Your task to perform on an android device: open app "Google Docs" (install if not already installed) Image 0: 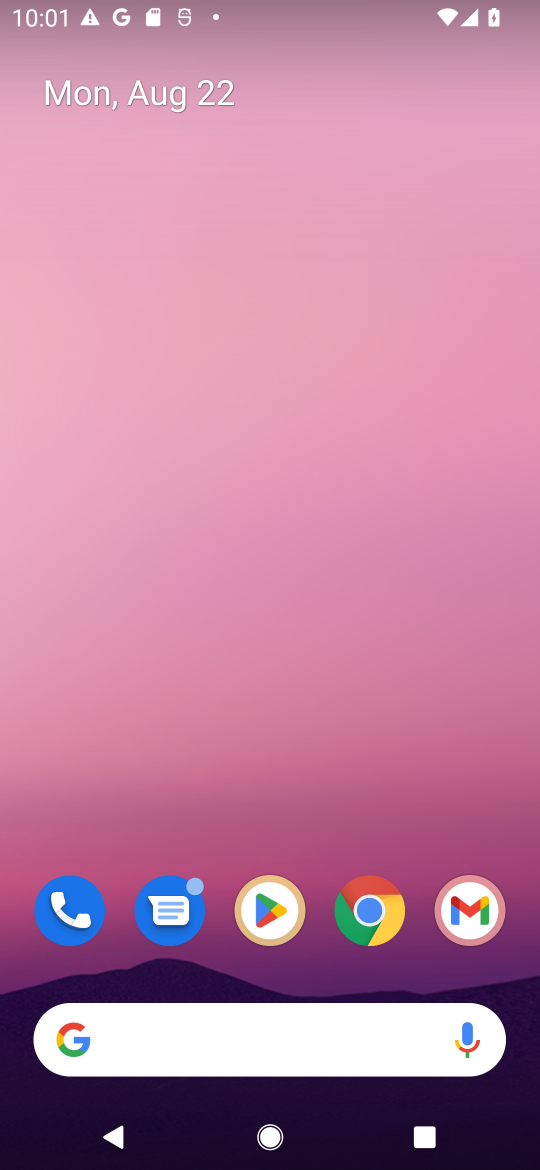
Step 0: click (281, 928)
Your task to perform on an android device: open app "Google Docs" (install if not already installed) Image 1: 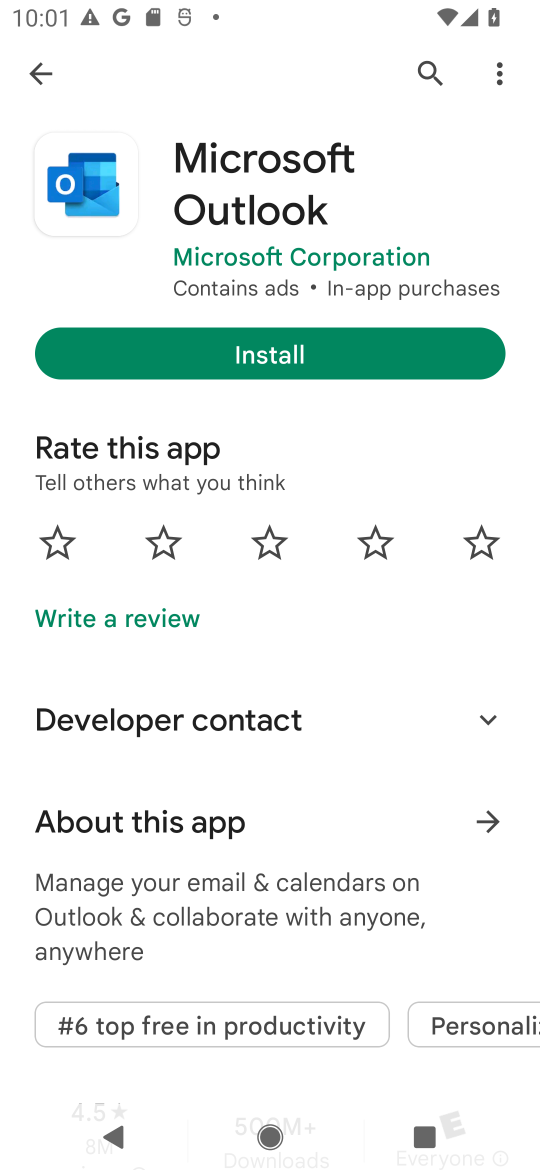
Step 1: click (436, 80)
Your task to perform on an android device: open app "Google Docs" (install if not already installed) Image 2: 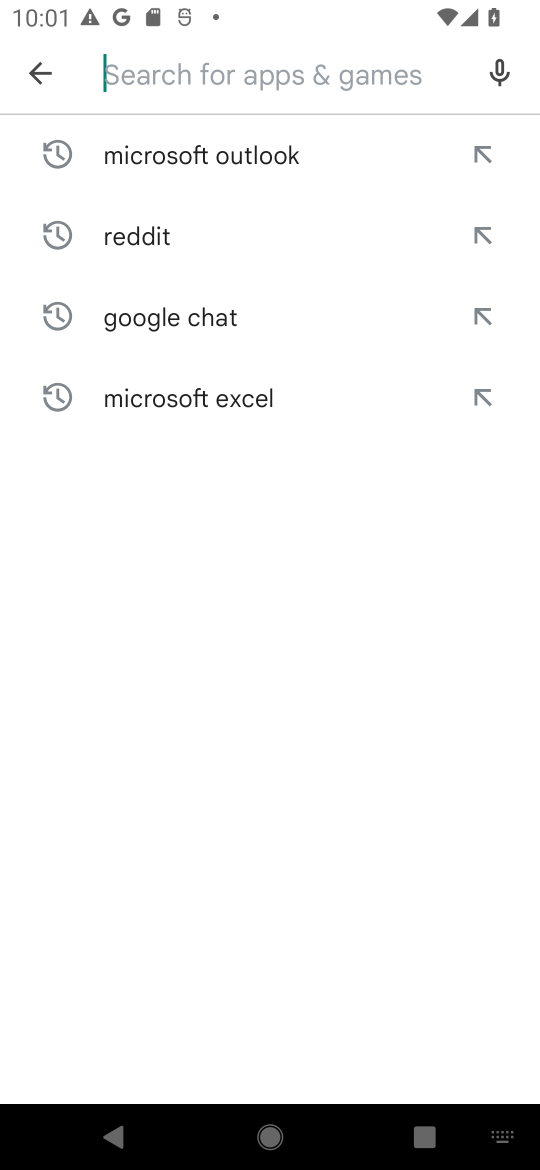
Step 2: type "Google Docs"
Your task to perform on an android device: open app "Google Docs" (install if not already installed) Image 3: 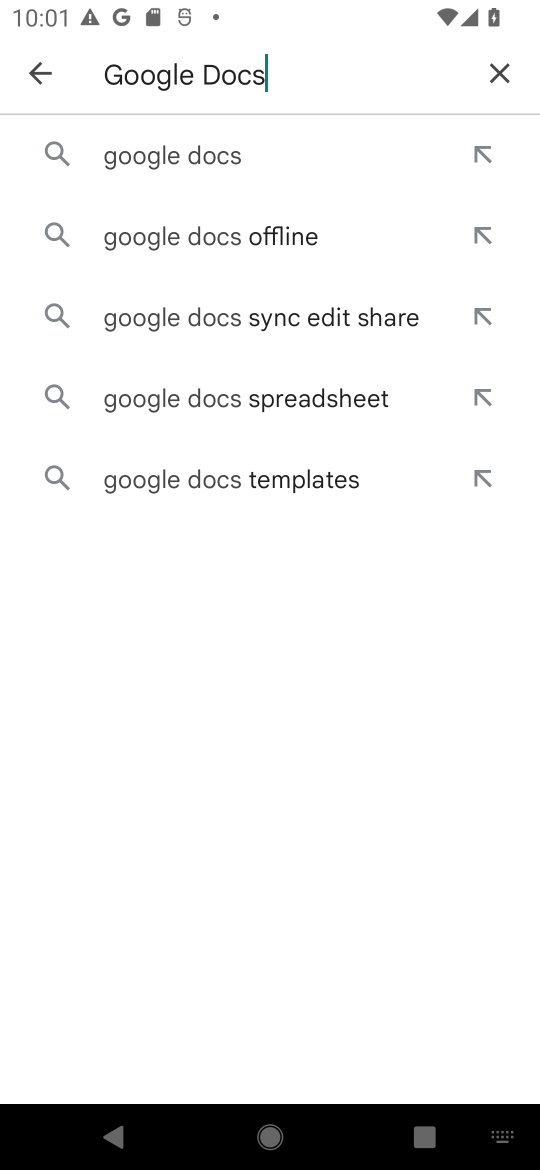
Step 3: click (167, 163)
Your task to perform on an android device: open app "Google Docs" (install if not already installed) Image 4: 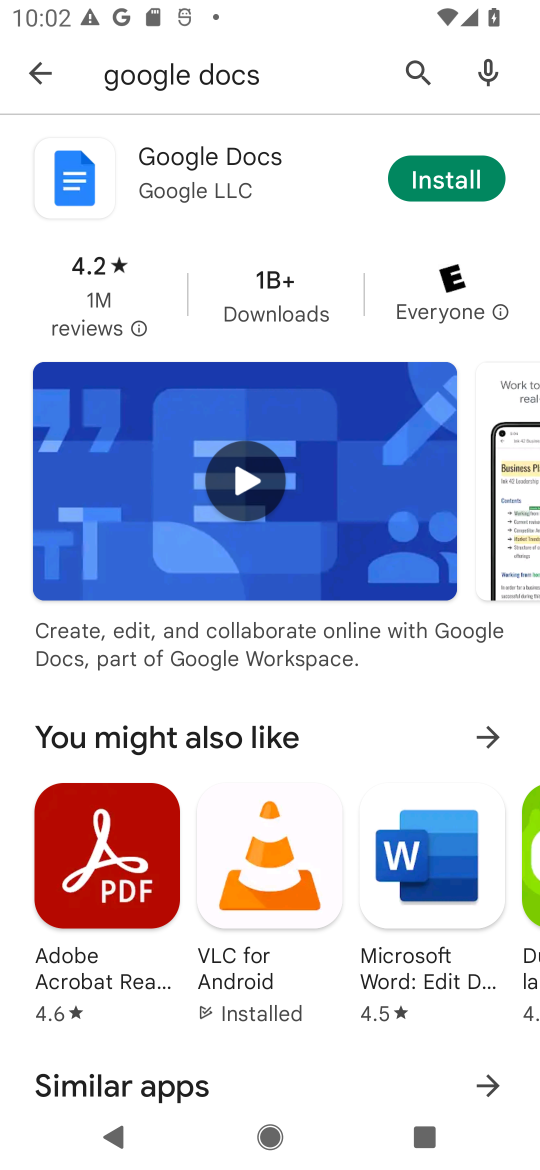
Step 4: click (430, 170)
Your task to perform on an android device: open app "Google Docs" (install if not already installed) Image 5: 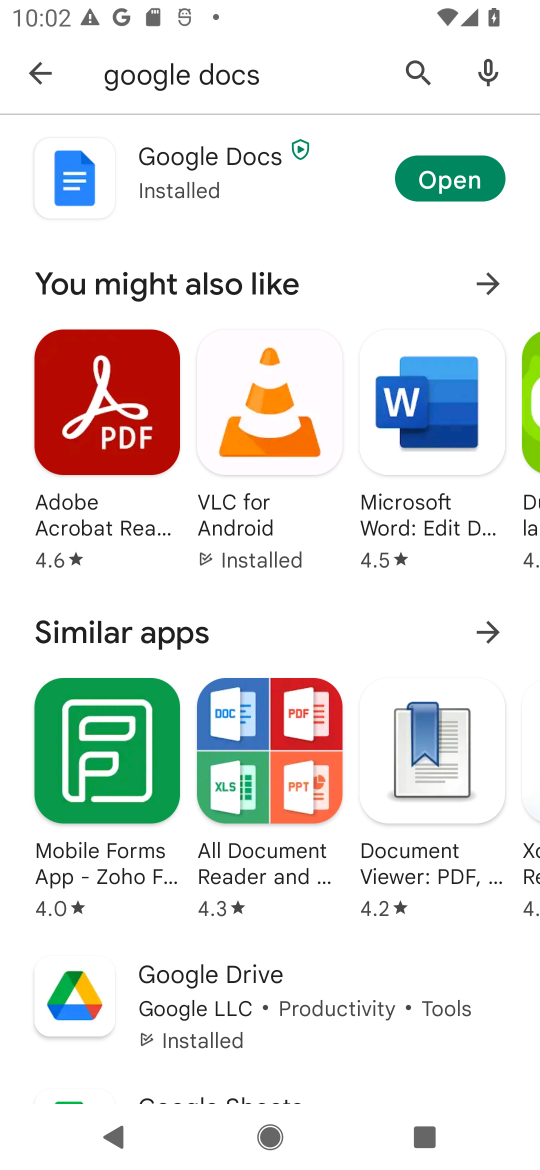
Step 5: click (467, 191)
Your task to perform on an android device: open app "Google Docs" (install if not already installed) Image 6: 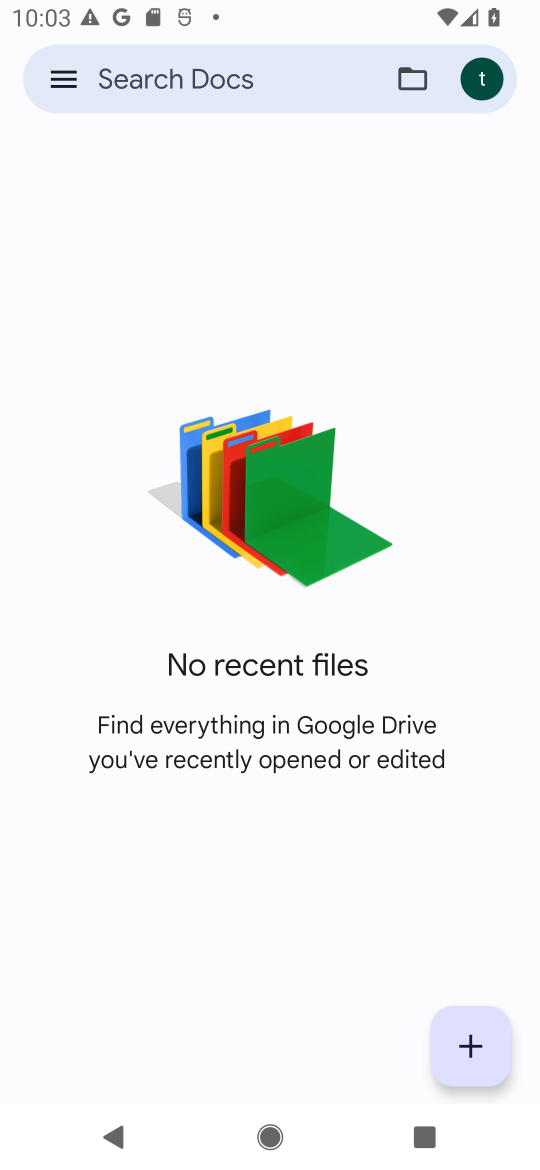
Step 6: task complete